Your task to perform on an android device: turn on notifications settings in the gmail app Image 0: 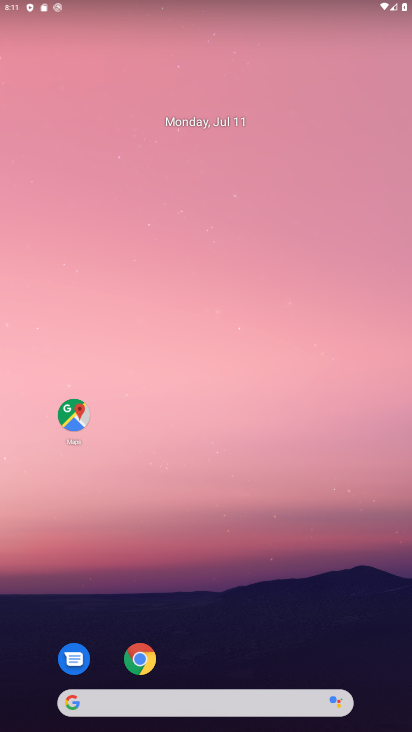
Step 0: drag from (40, 708) to (179, 185)
Your task to perform on an android device: turn on notifications settings in the gmail app Image 1: 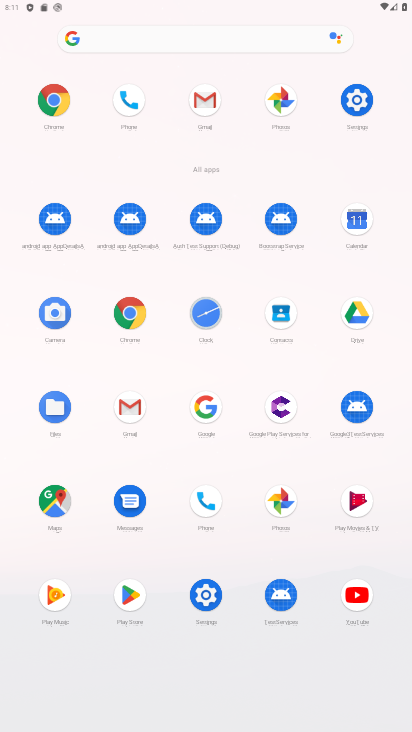
Step 1: click (210, 104)
Your task to perform on an android device: turn on notifications settings in the gmail app Image 2: 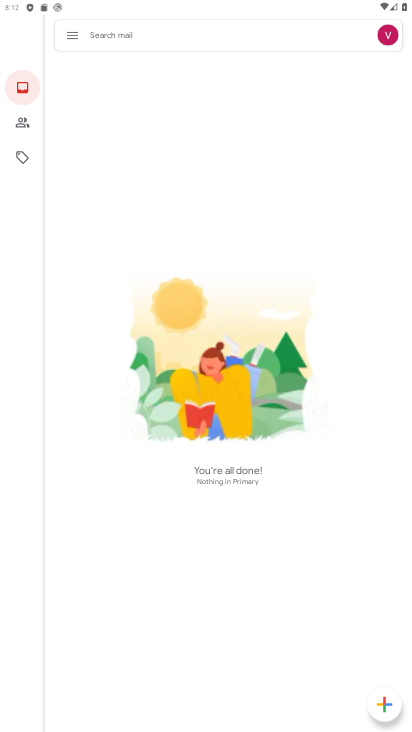
Step 2: click (72, 33)
Your task to perform on an android device: turn on notifications settings in the gmail app Image 3: 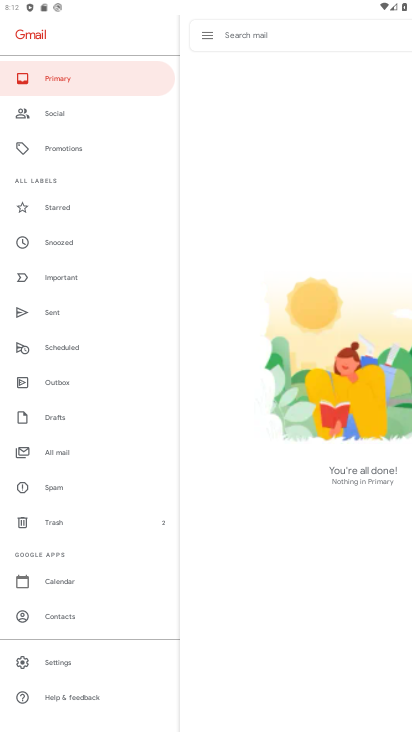
Step 3: click (74, 669)
Your task to perform on an android device: turn on notifications settings in the gmail app Image 4: 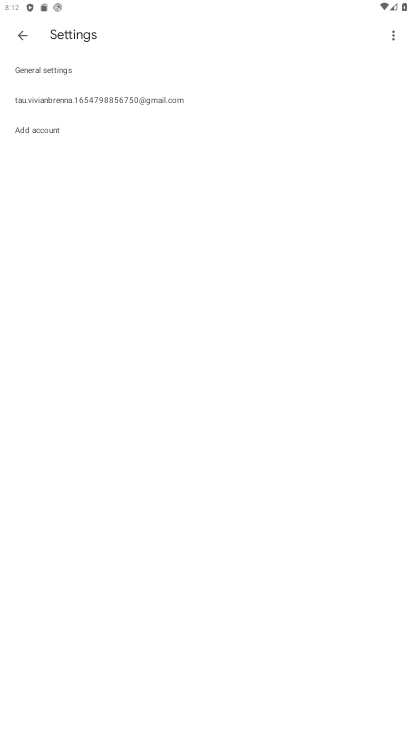
Step 4: click (55, 66)
Your task to perform on an android device: turn on notifications settings in the gmail app Image 5: 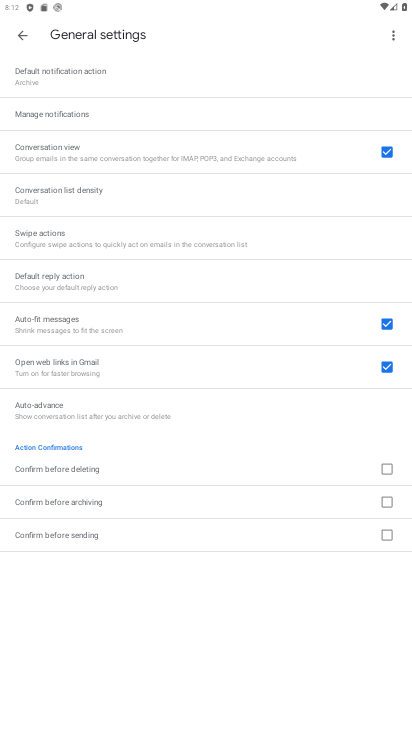
Step 5: click (58, 106)
Your task to perform on an android device: turn on notifications settings in the gmail app Image 6: 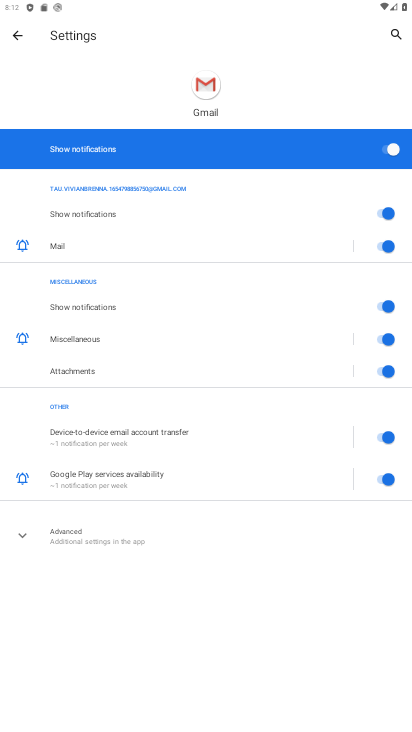
Step 6: task complete